Your task to perform on an android device: Go to internet settings Image 0: 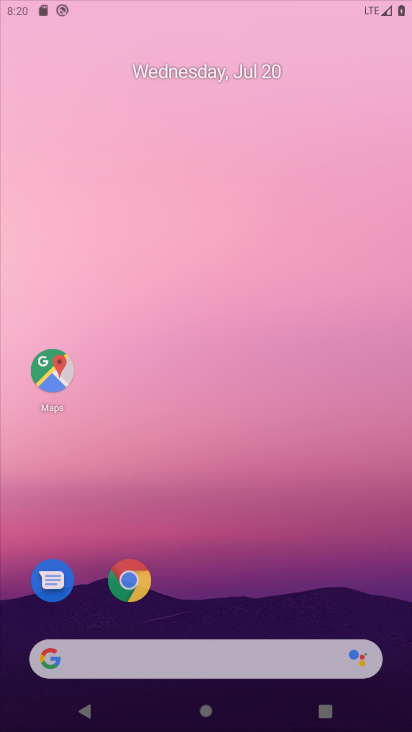
Step 0: press home button
Your task to perform on an android device: Go to internet settings Image 1: 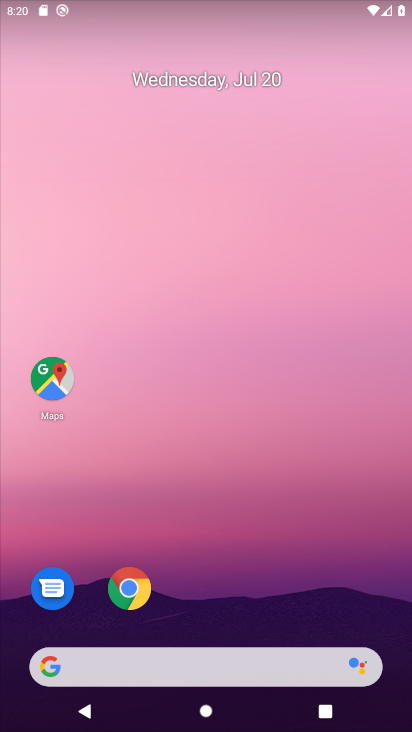
Step 1: drag from (195, 628) to (231, 126)
Your task to perform on an android device: Go to internet settings Image 2: 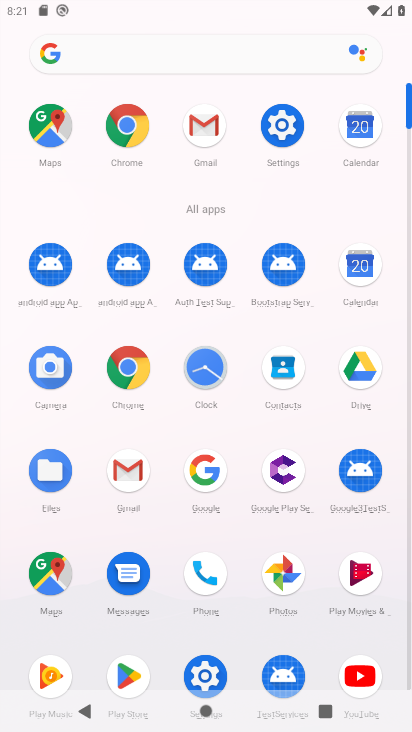
Step 2: click (282, 119)
Your task to perform on an android device: Go to internet settings Image 3: 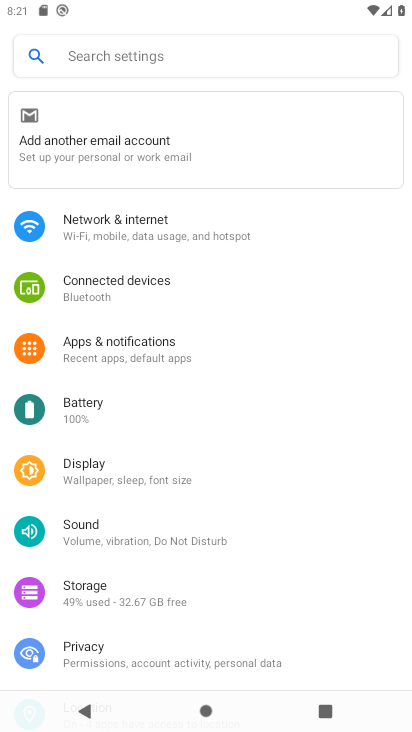
Step 3: click (131, 221)
Your task to perform on an android device: Go to internet settings Image 4: 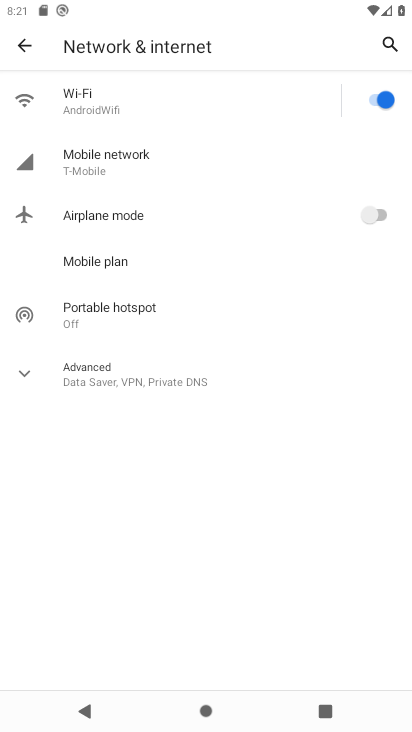
Step 4: click (29, 369)
Your task to perform on an android device: Go to internet settings Image 5: 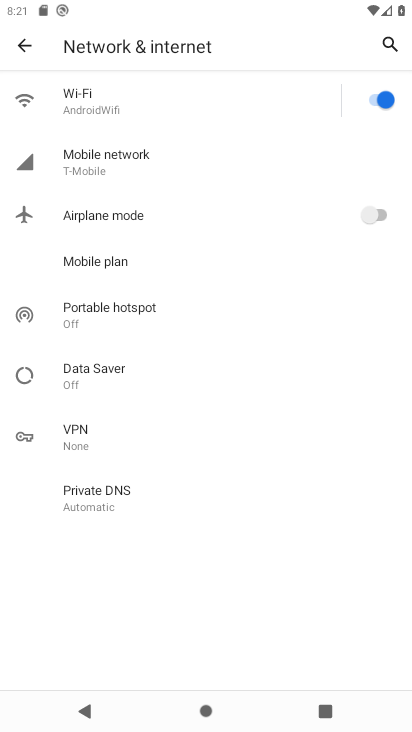
Step 5: task complete